Your task to perform on an android device: Is it going to rain tomorrow? Image 0: 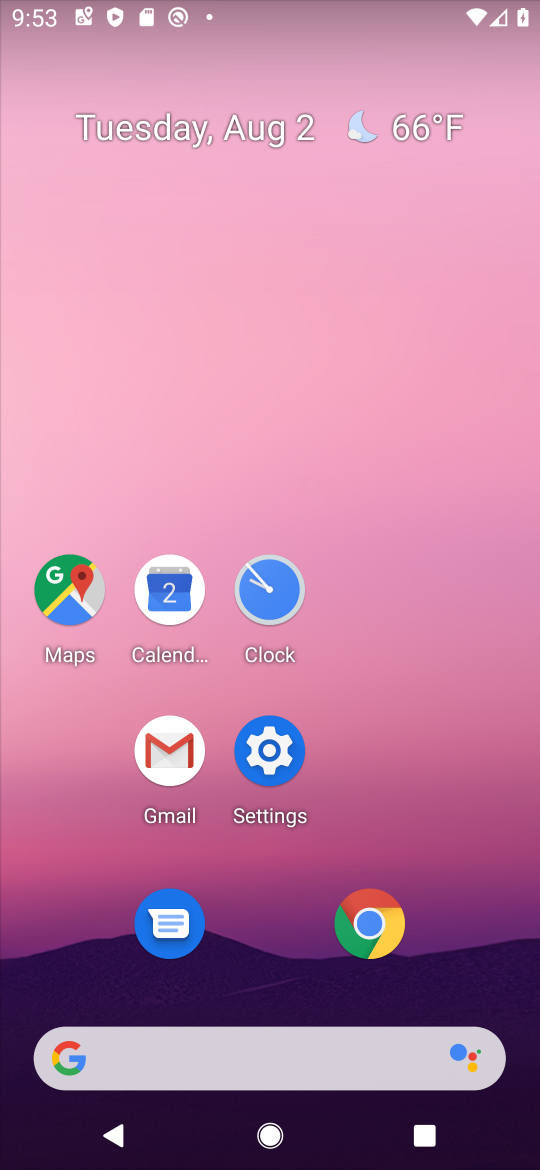
Step 0: drag from (514, 1067) to (352, 68)
Your task to perform on an android device: Is it going to rain tomorrow? Image 1: 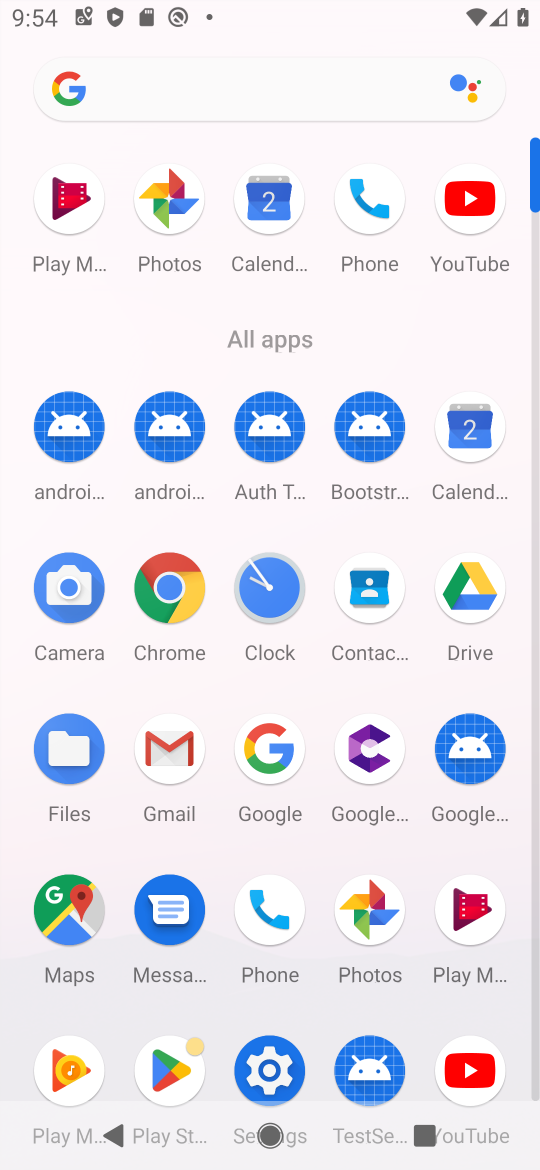
Step 1: click (256, 753)
Your task to perform on an android device: Is it going to rain tomorrow? Image 2: 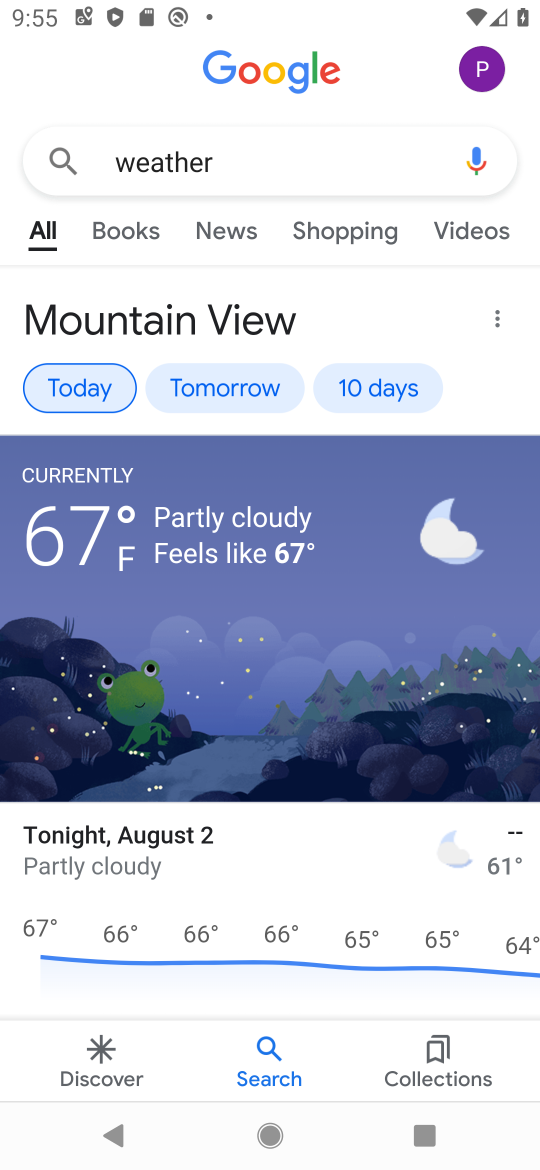
Step 2: click (228, 386)
Your task to perform on an android device: Is it going to rain tomorrow? Image 3: 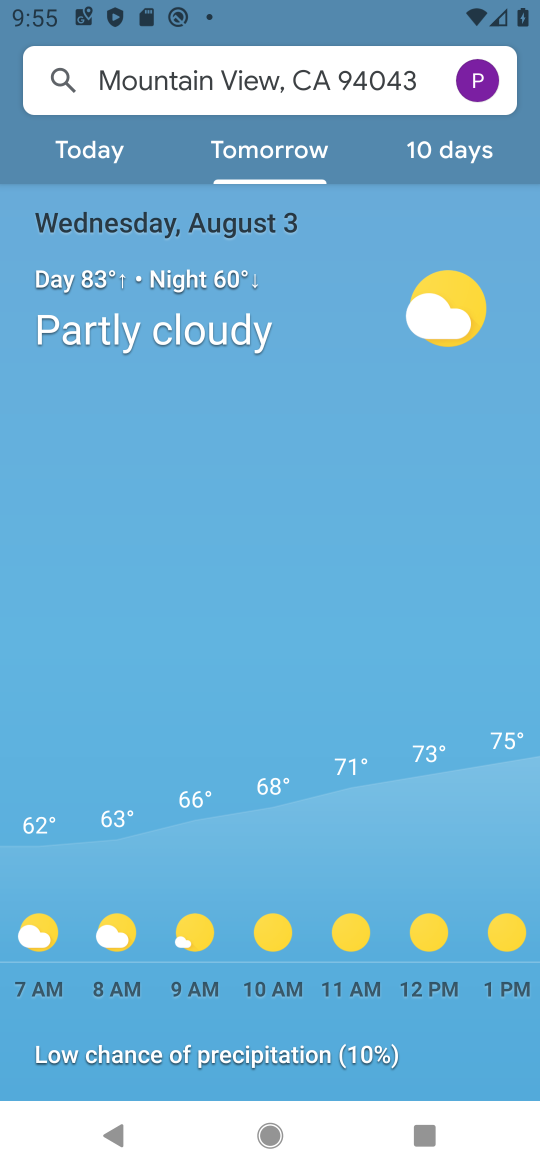
Step 3: task complete